Your task to perform on an android device: add a label to a message in the gmail app Image 0: 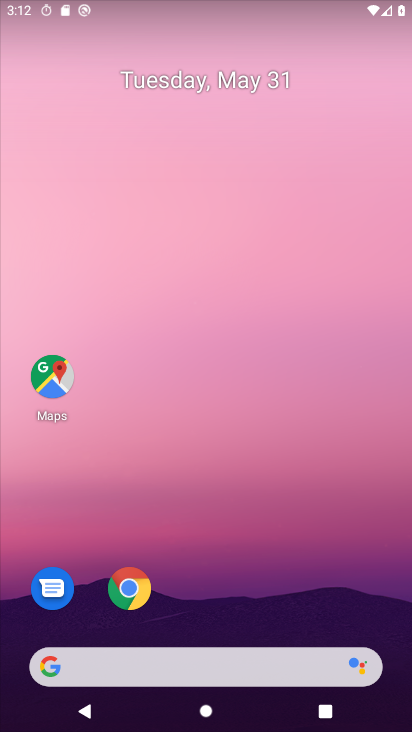
Step 0: drag from (283, 643) to (336, 133)
Your task to perform on an android device: add a label to a message in the gmail app Image 1: 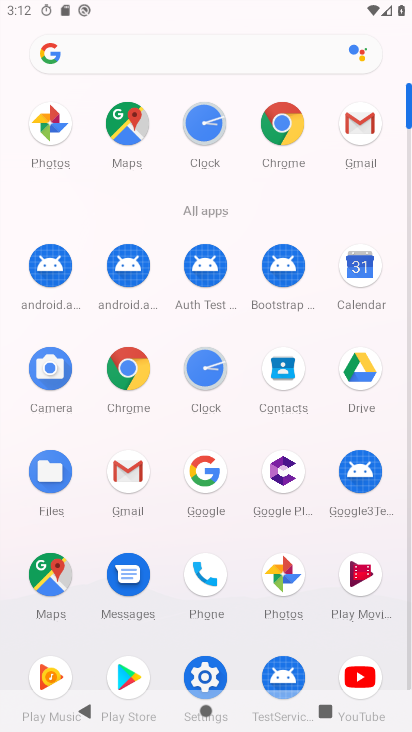
Step 1: click (130, 489)
Your task to perform on an android device: add a label to a message in the gmail app Image 2: 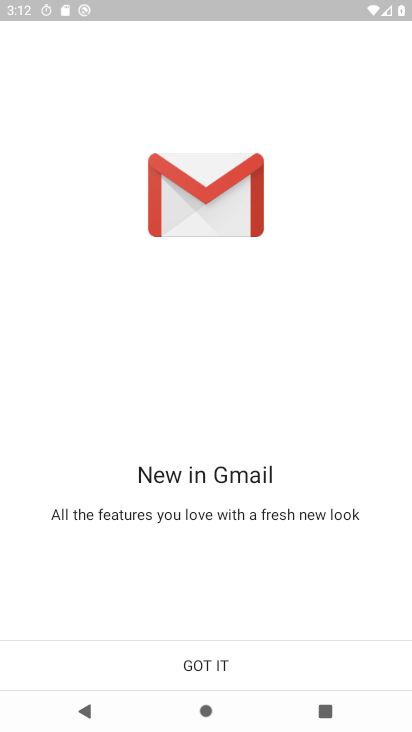
Step 2: click (224, 668)
Your task to perform on an android device: add a label to a message in the gmail app Image 3: 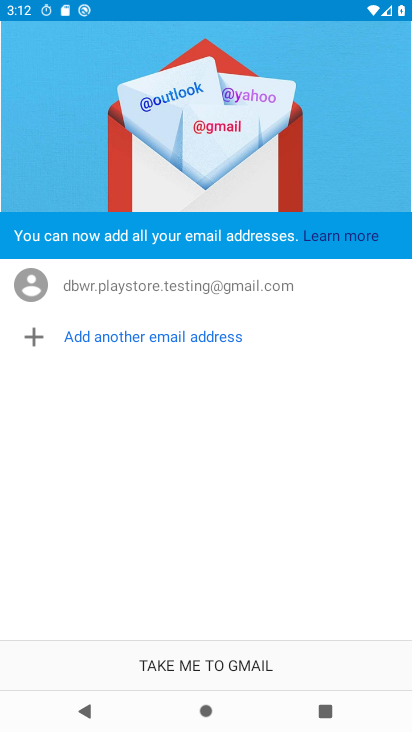
Step 3: click (228, 665)
Your task to perform on an android device: add a label to a message in the gmail app Image 4: 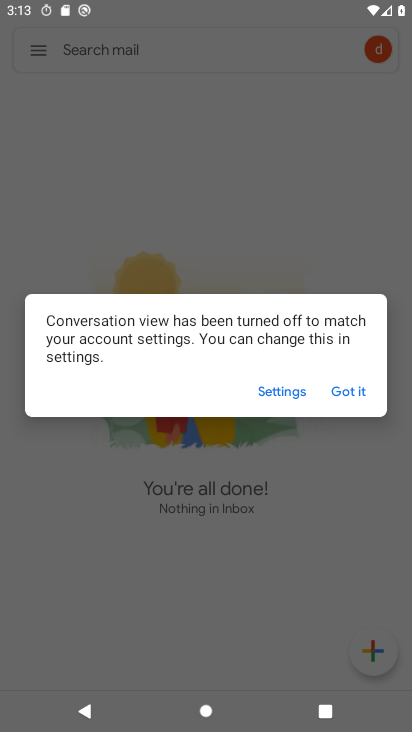
Step 4: click (362, 387)
Your task to perform on an android device: add a label to a message in the gmail app Image 5: 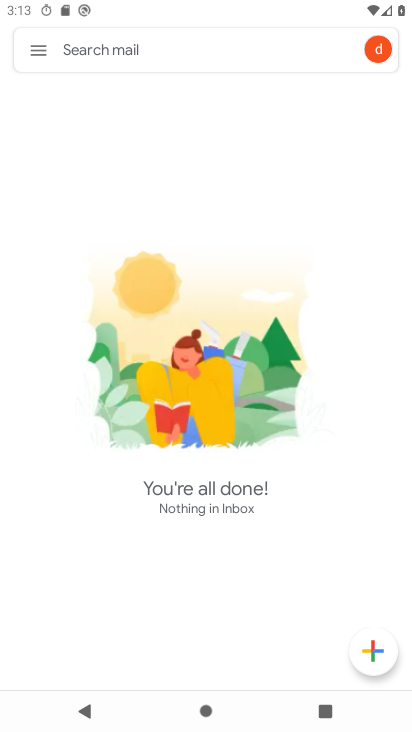
Step 5: click (45, 50)
Your task to perform on an android device: add a label to a message in the gmail app Image 6: 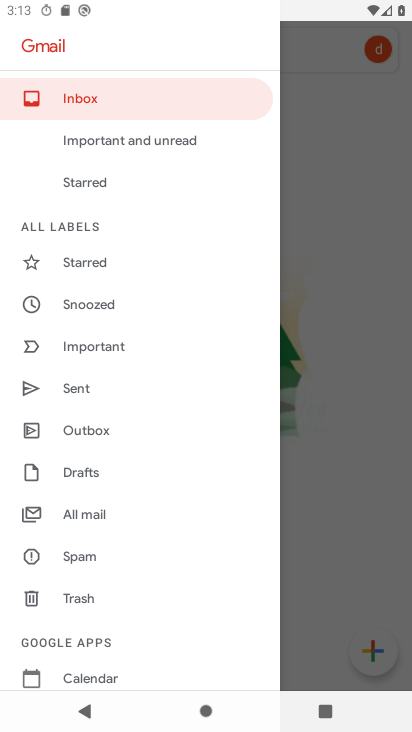
Step 6: drag from (142, 571) to (162, 304)
Your task to perform on an android device: add a label to a message in the gmail app Image 7: 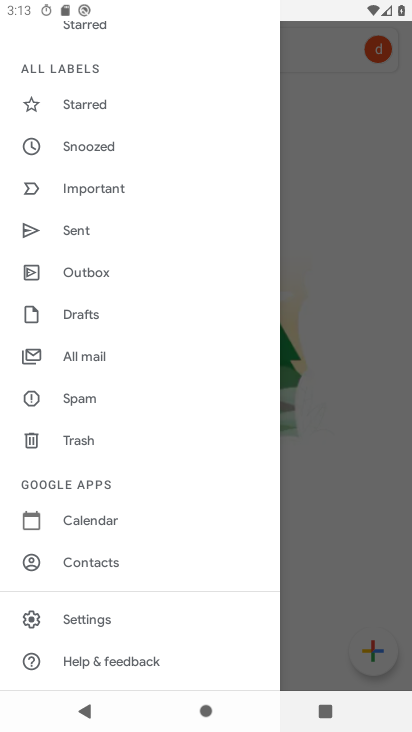
Step 7: click (89, 365)
Your task to perform on an android device: add a label to a message in the gmail app Image 8: 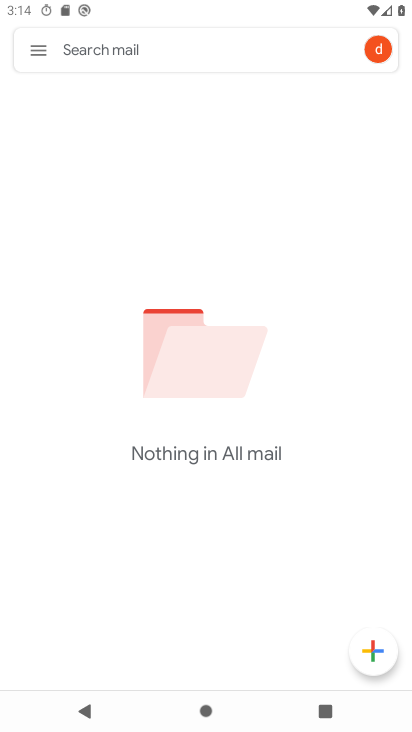
Step 8: task complete